Your task to perform on an android device: create a new album in the google photos Image 0: 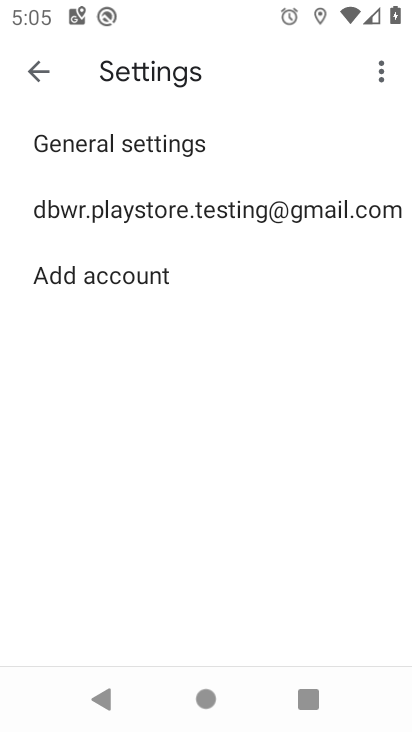
Step 0: press home button
Your task to perform on an android device: create a new album in the google photos Image 1: 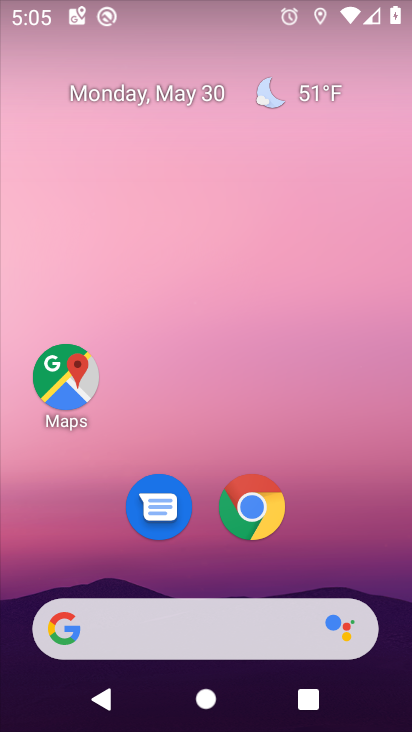
Step 1: drag from (353, 536) to (355, 107)
Your task to perform on an android device: create a new album in the google photos Image 2: 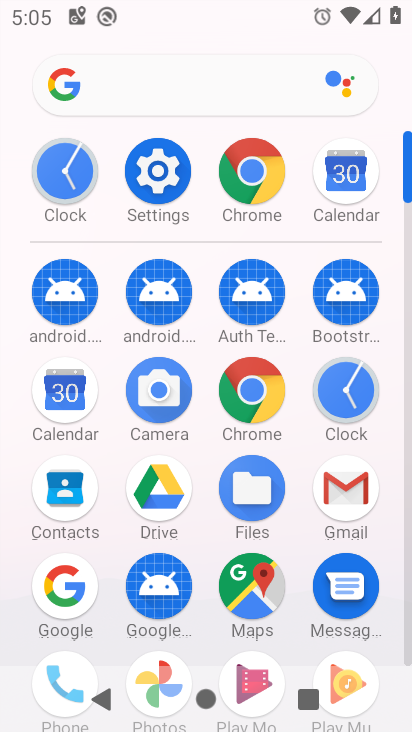
Step 2: click (397, 624)
Your task to perform on an android device: create a new album in the google photos Image 3: 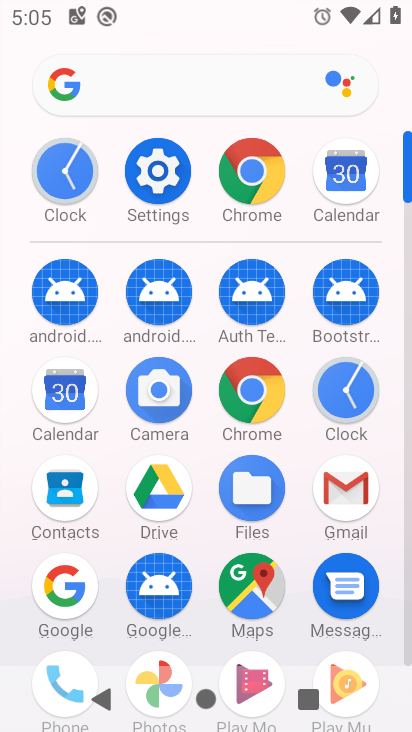
Step 3: click (401, 635)
Your task to perform on an android device: create a new album in the google photos Image 4: 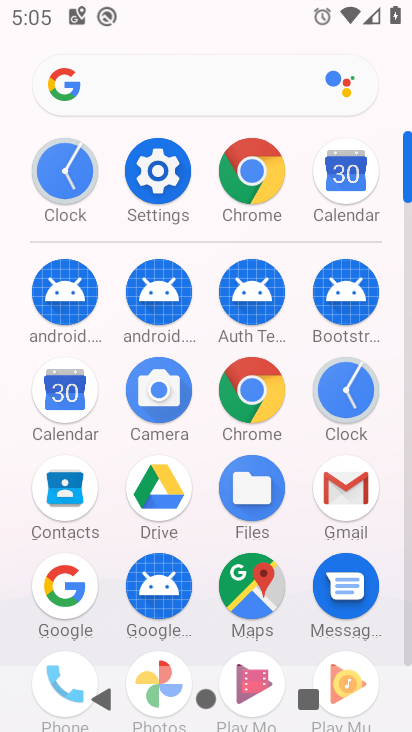
Step 4: click (406, 642)
Your task to perform on an android device: create a new album in the google photos Image 5: 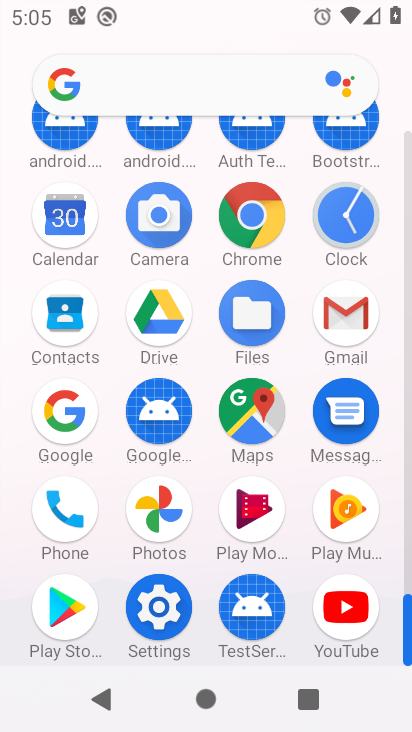
Step 5: click (156, 548)
Your task to perform on an android device: create a new album in the google photos Image 6: 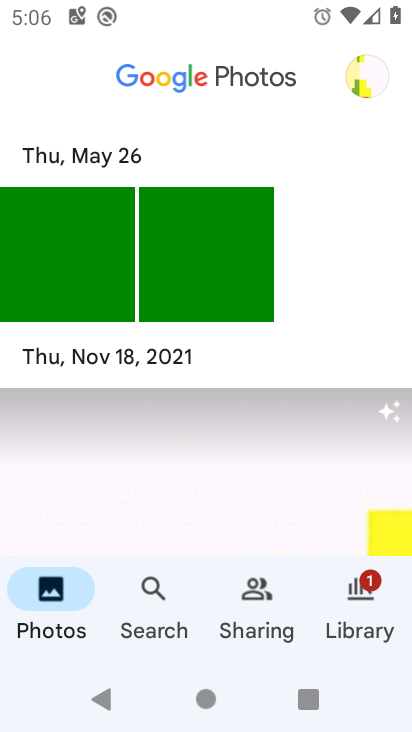
Step 6: click (179, 277)
Your task to perform on an android device: create a new album in the google photos Image 7: 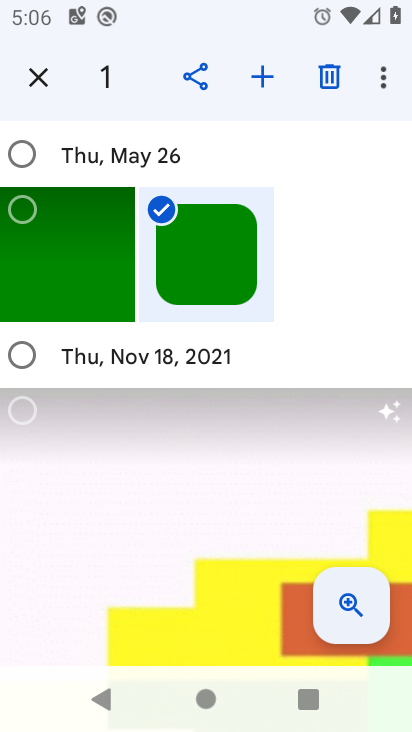
Step 7: click (73, 280)
Your task to perform on an android device: create a new album in the google photos Image 8: 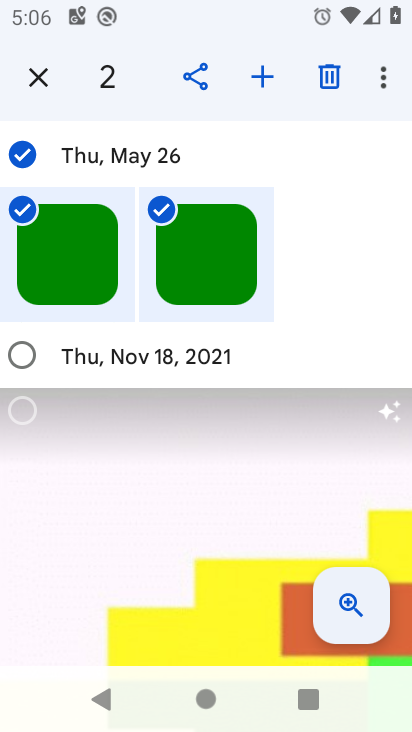
Step 8: click (250, 79)
Your task to perform on an android device: create a new album in the google photos Image 9: 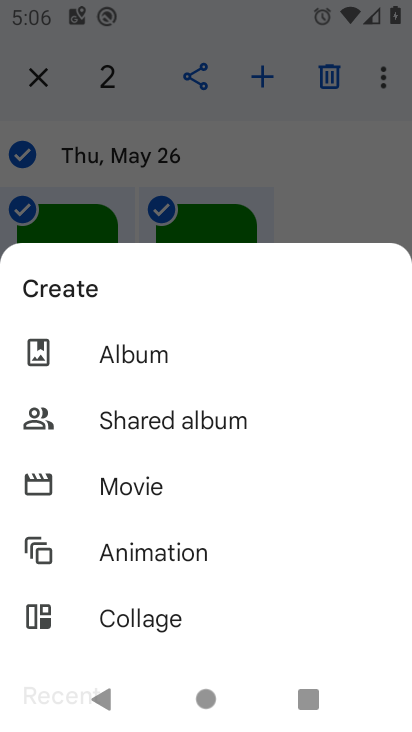
Step 9: click (161, 362)
Your task to perform on an android device: create a new album in the google photos Image 10: 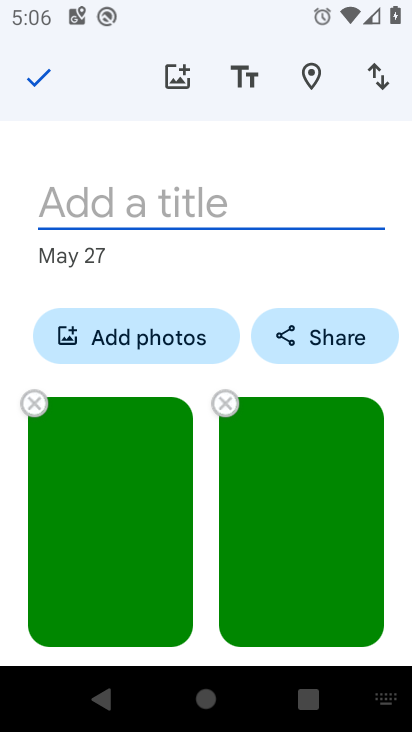
Step 10: type "ghj"
Your task to perform on an android device: create a new album in the google photos Image 11: 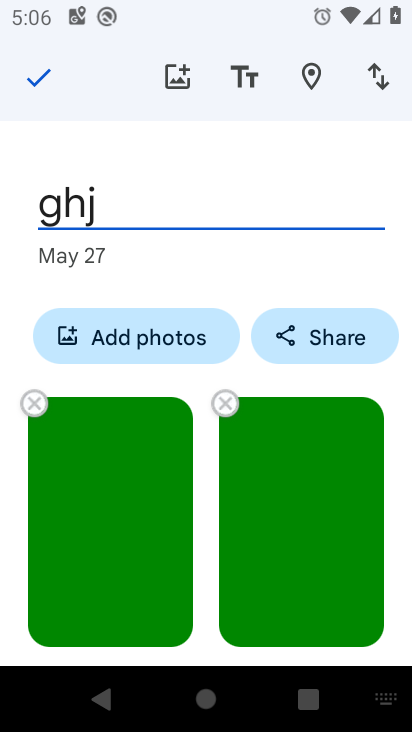
Step 11: click (28, 89)
Your task to perform on an android device: create a new album in the google photos Image 12: 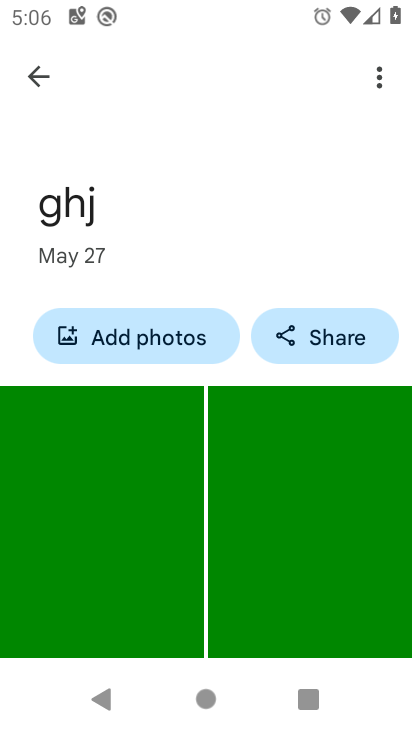
Step 12: task complete